Your task to perform on an android device: Search for Italian restaurants on Maps Image 0: 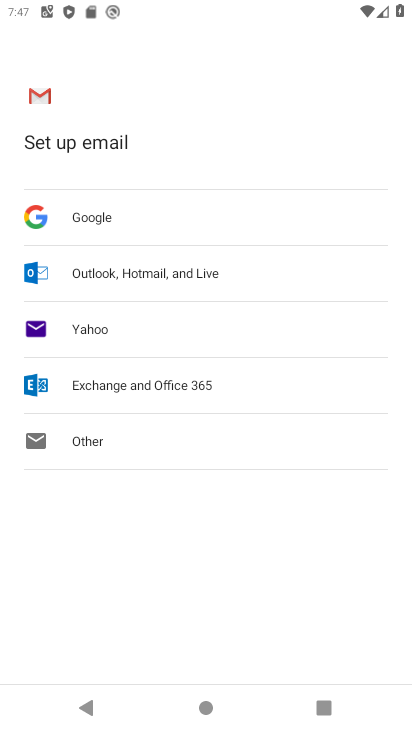
Step 0: press back button
Your task to perform on an android device: Search for Italian restaurants on Maps Image 1: 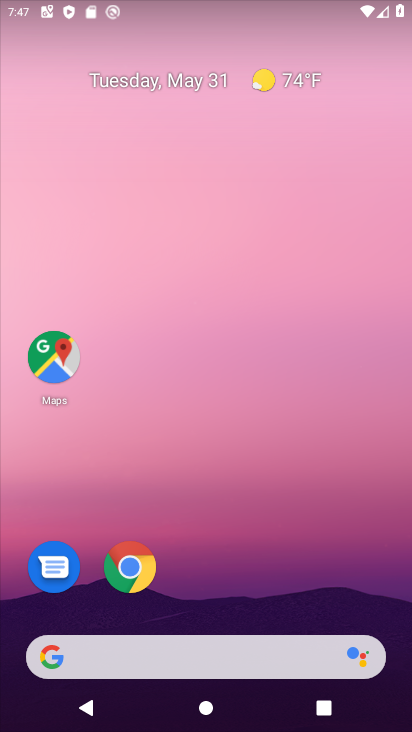
Step 1: drag from (258, 689) to (235, 141)
Your task to perform on an android device: Search for Italian restaurants on Maps Image 2: 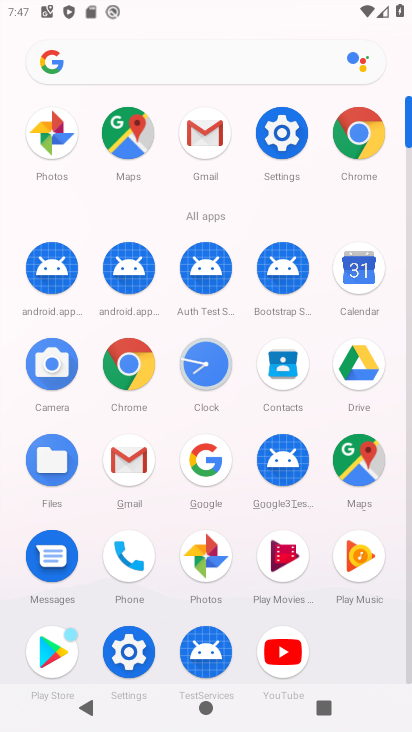
Step 2: click (359, 453)
Your task to perform on an android device: Search for Italian restaurants on Maps Image 3: 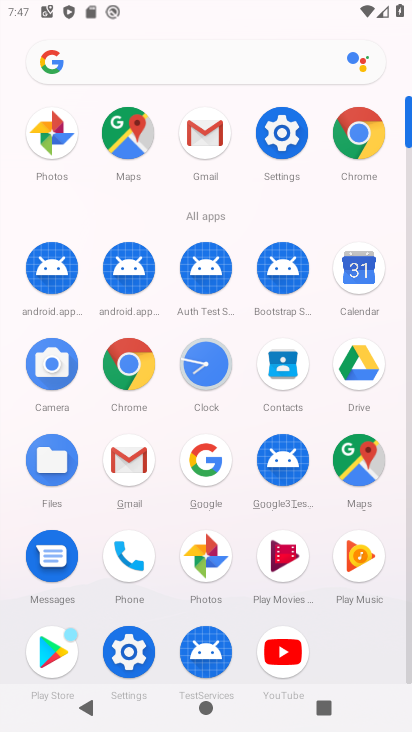
Step 3: click (359, 453)
Your task to perform on an android device: Search for Italian restaurants on Maps Image 4: 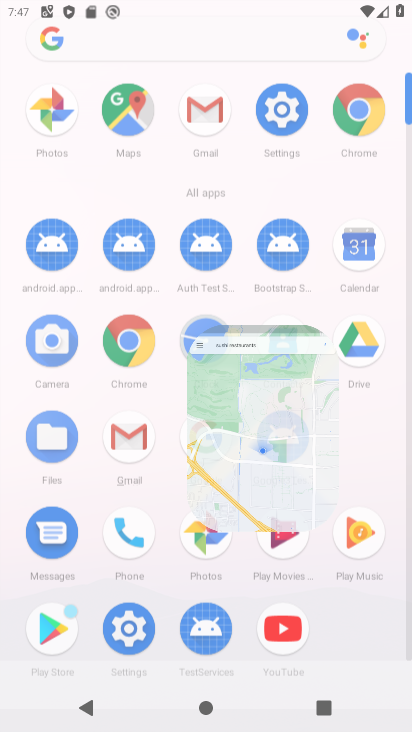
Step 4: click (367, 449)
Your task to perform on an android device: Search for Italian restaurants on Maps Image 5: 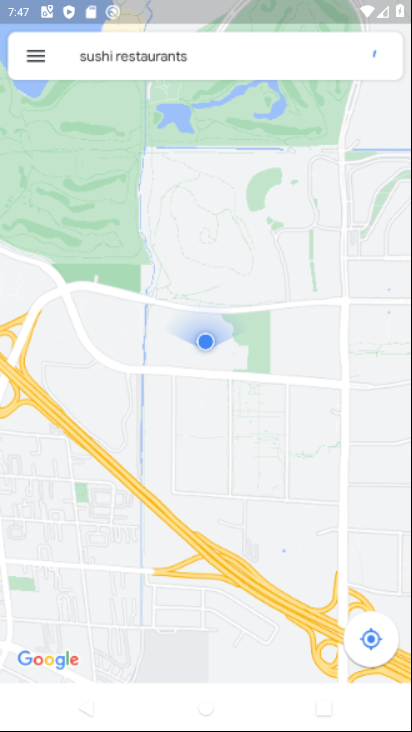
Step 5: click (367, 449)
Your task to perform on an android device: Search for Italian restaurants on Maps Image 6: 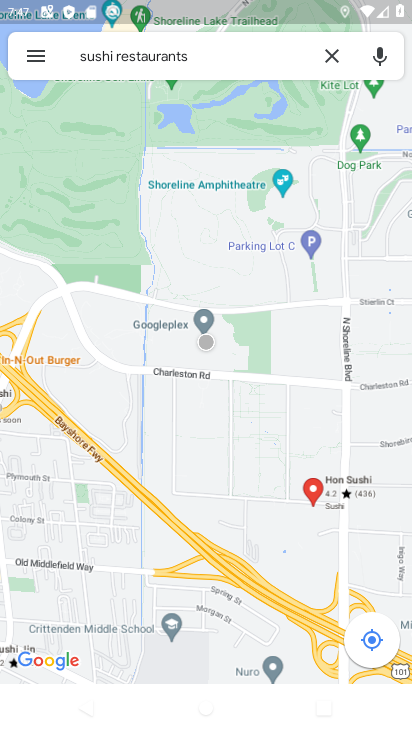
Step 6: press back button
Your task to perform on an android device: Search for Italian restaurants on Maps Image 7: 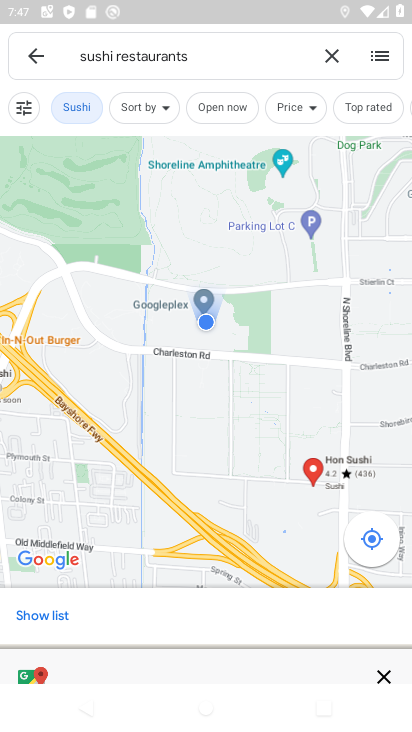
Step 7: press back button
Your task to perform on an android device: Search for Italian restaurants on Maps Image 8: 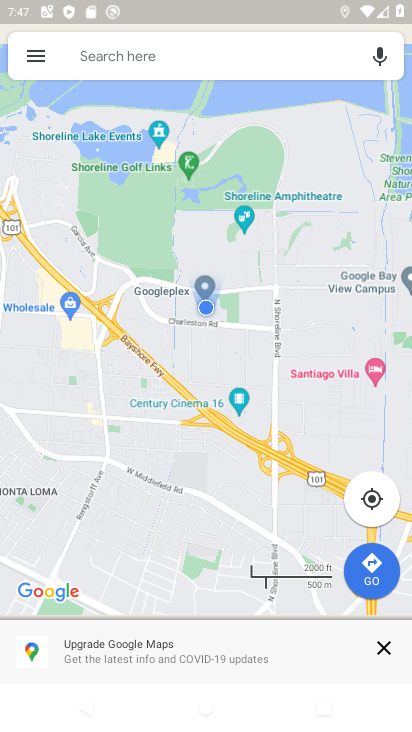
Step 8: click (75, 56)
Your task to perform on an android device: Search for Italian restaurants on Maps Image 9: 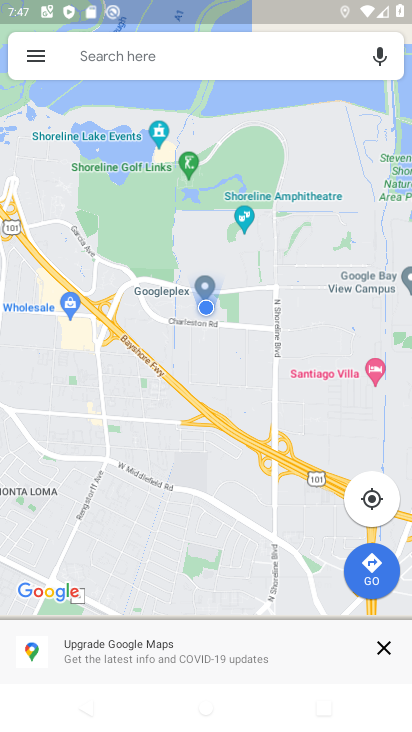
Step 9: click (82, 53)
Your task to perform on an android device: Search for Italian restaurants on Maps Image 10: 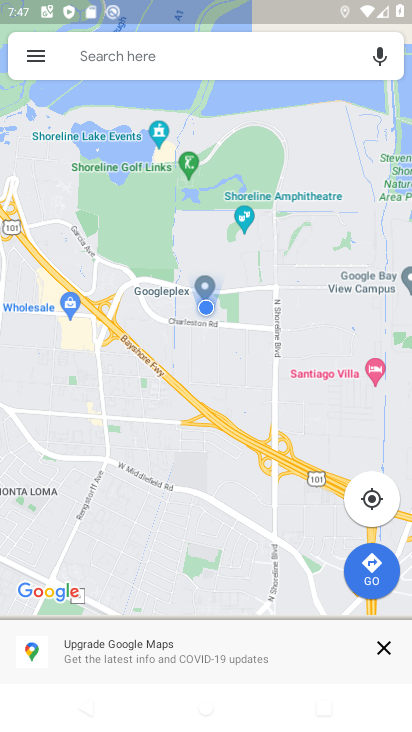
Step 10: click (81, 48)
Your task to perform on an android device: Search for Italian restaurants on Maps Image 11: 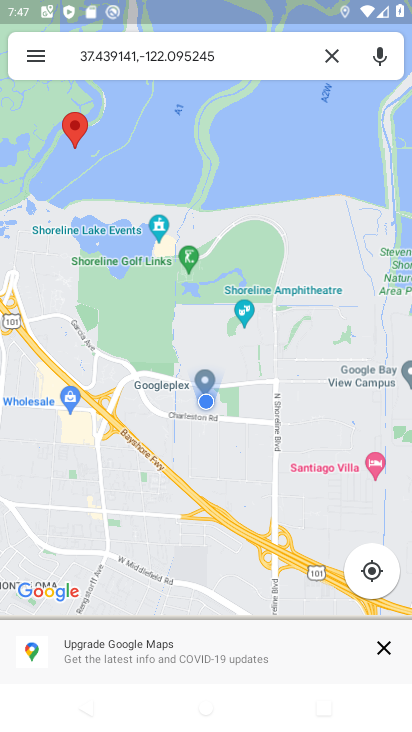
Step 11: click (87, 52)
Your task to perform on an android device: Search for Italian restaurants on Maps Image 12: 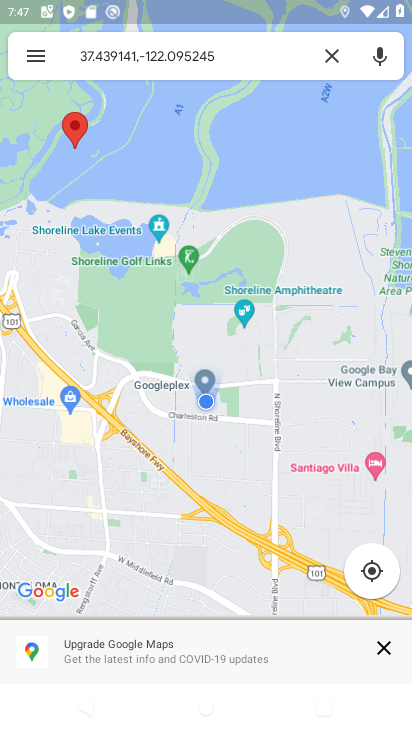
Step 12: click (87, 52)
Your task to perform on an android device: Search for Italian restaurants on Maps Image 13: 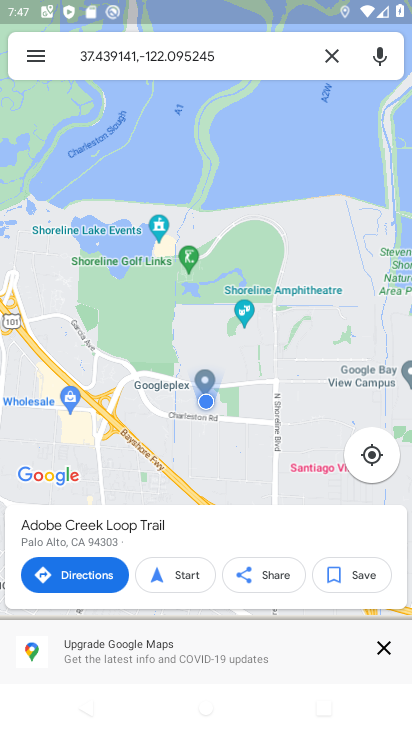
Step 13: click (325, 49)
Your task to perform on an android device: Search for Italian restaurants on Maps Image 14: 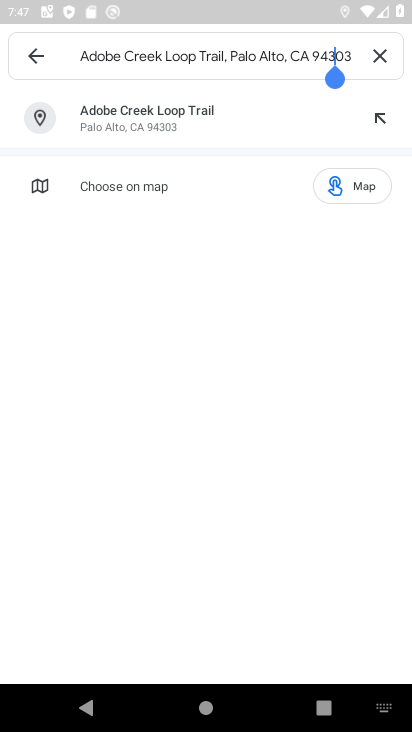
Step 14: click (32, 56)
Your task to perform on an android device: Search for Italian restaurants on Maps Image 15: 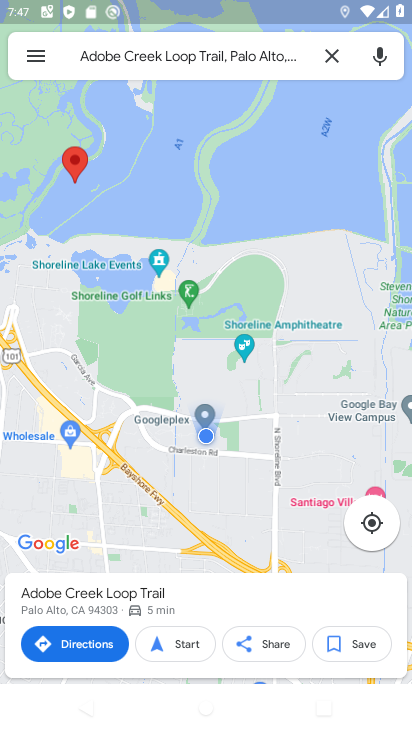
Step 15: click (332, 51)
Your task to perform on an android device: Search for Italian restaurants on Maps Image 16: 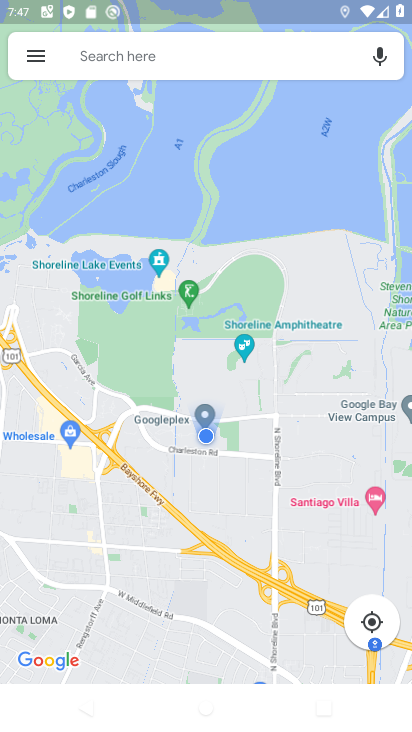
Step 16: click (336, 57)
Your task to perform on an android device: Search for Italian restaurants on Maps Image 17: 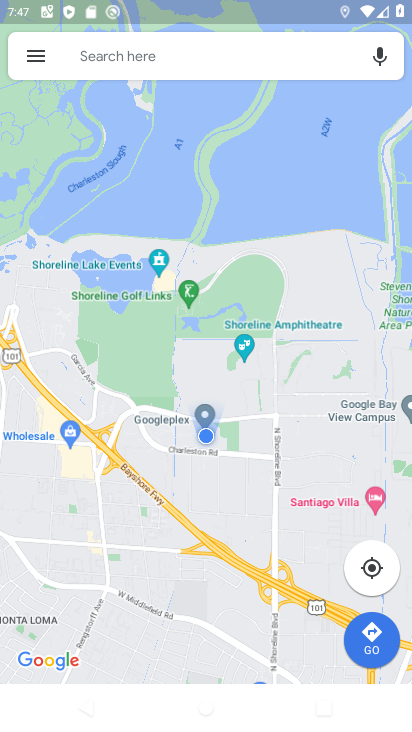
Step 17: click (336, 57)
Your task to perform on an android device: Search for Italian restaurants on Maps Image 18: 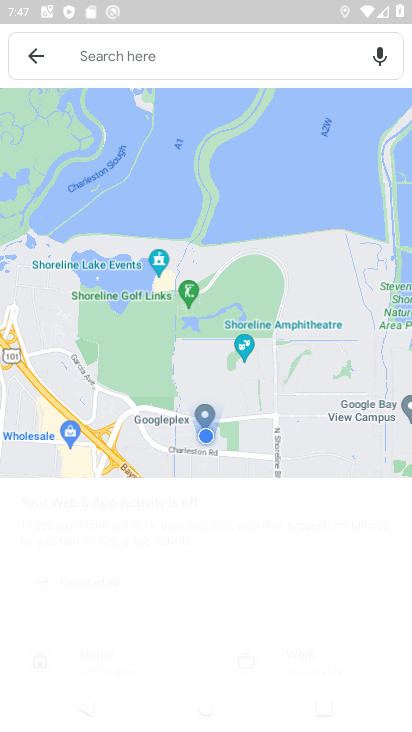
Step 18: click (334, 58)
Your task to perform on an android device: Search for Italian restaurants on Maps Image 19: 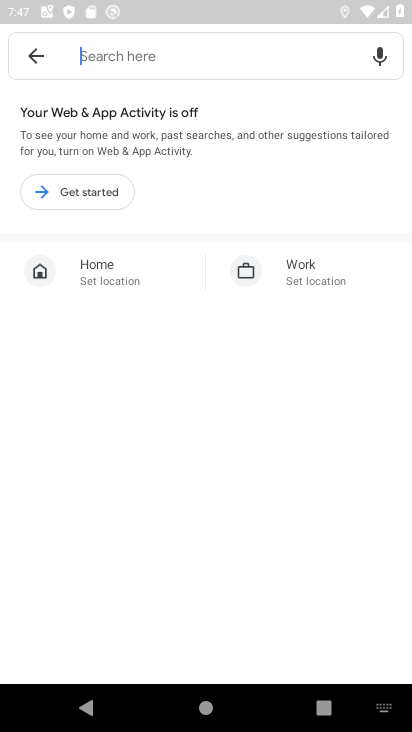
Step 19: type "italian resturants"
Your task to perform on an android device: Search for Italian restaurants on Maps Image 20: 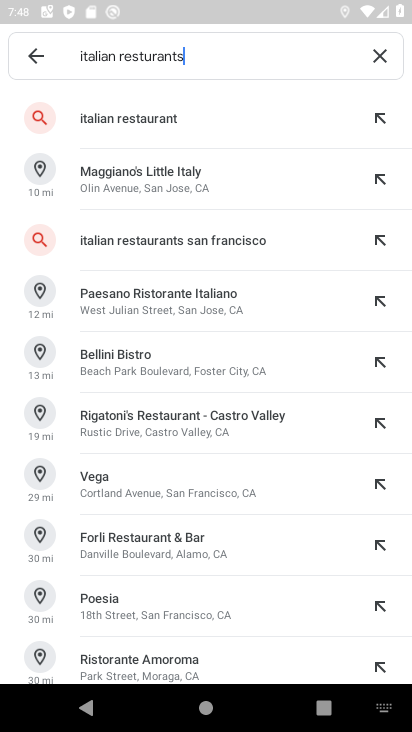
Step 20: click (178, 116)
Your task to perform on an android device: Search for Italian restaurants on Maps Image 21: 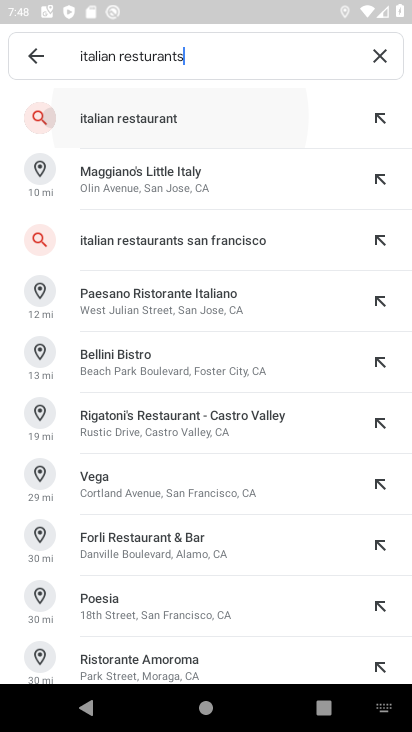
Step 21: click (178, 117)
Your task to perform on an android device: Search for Italian restaurants on Maps Image 22: 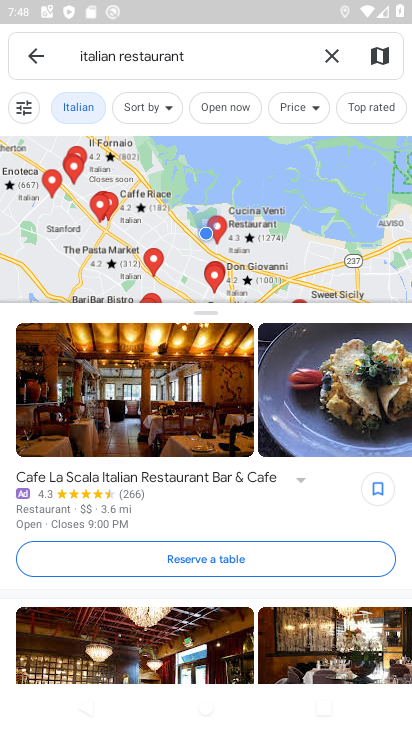
Step 22: task complete